Your task to perform on an android device: empty trash in google photos Image 0: 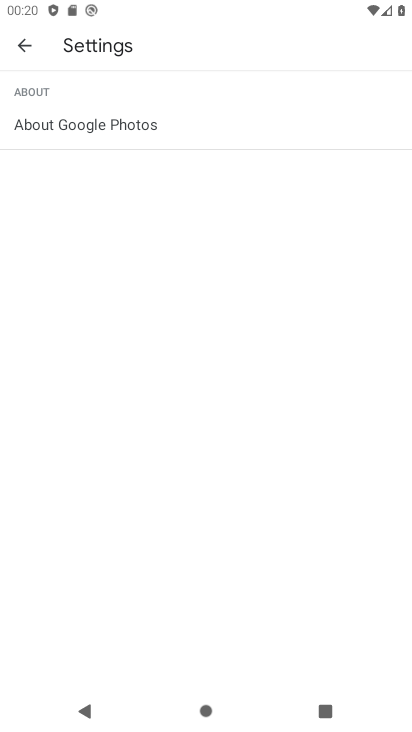
Step 0: press home button
Your task to perform on an android device: empty trash in google photos Image 1: 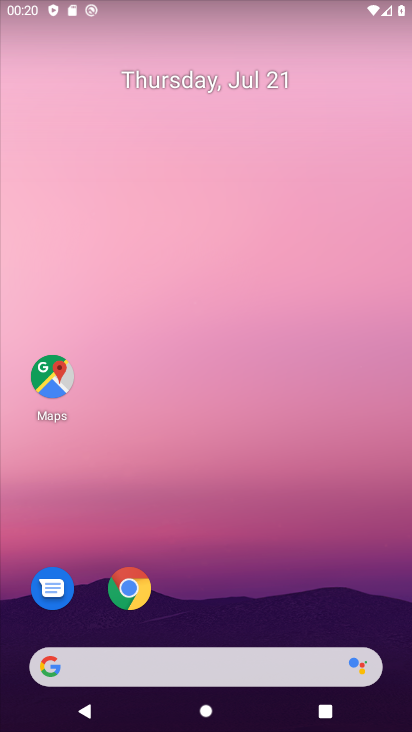
Step 1: drag from (271, 495) to (338, 32)
Your task to perform on an android device: empty trash in google photos Image 2: 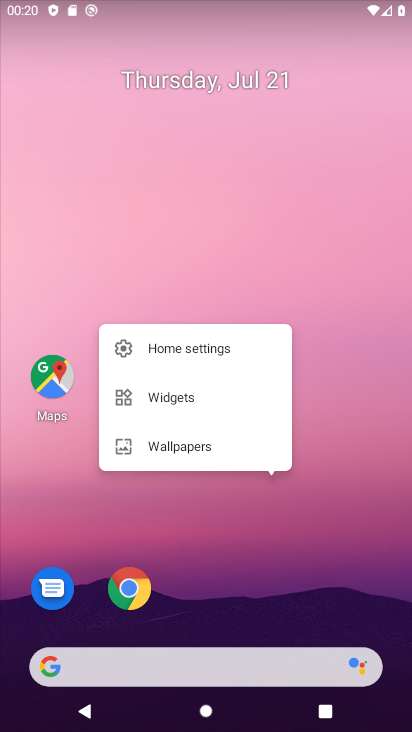
Step 2: click (368, 276)
Your task to perform on an android device: empty trash in google photos Image 3: 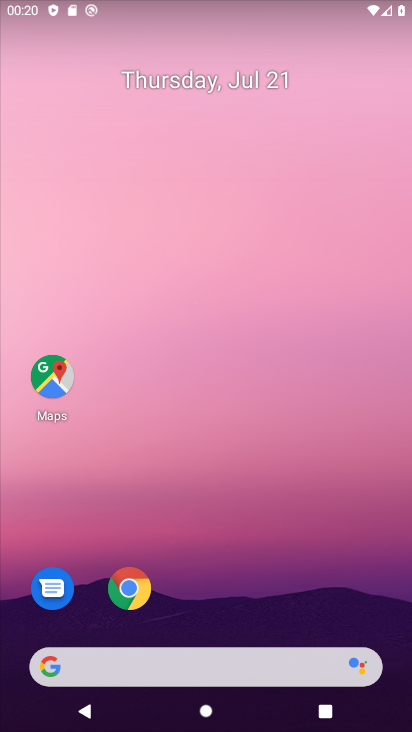
Step 3: drag from (213, 518) to (288, 9)
Your task to perform on an android device: empty trash in google photos Image 4: 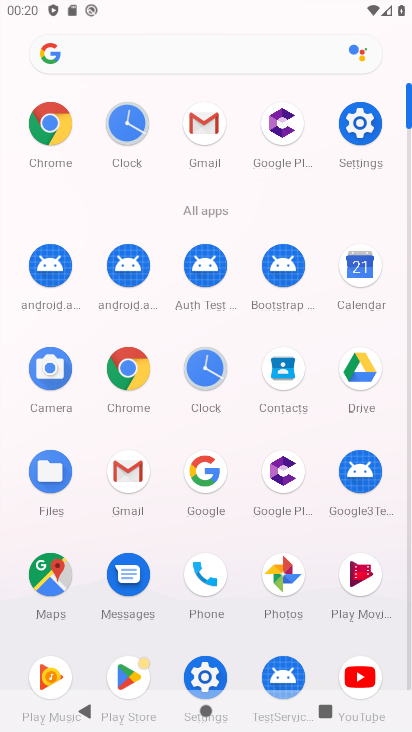
Step 4: click (272, 567)
Your task to perform on an android device: empty trash in google photos Image 5: 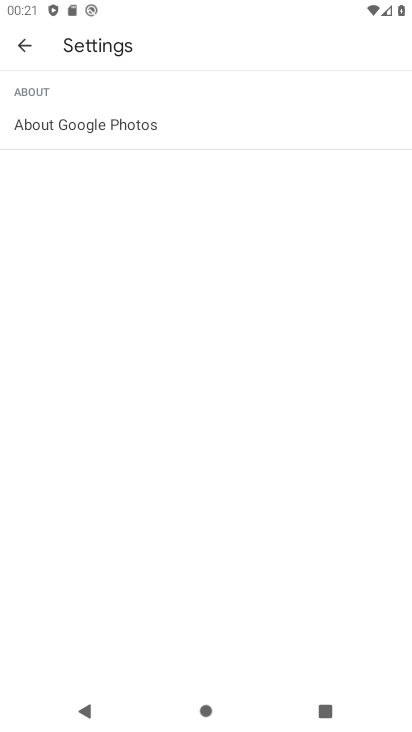
Step 5: click (21, 38)
Your task to perform on an android device: empty trash in google photos Image 6: 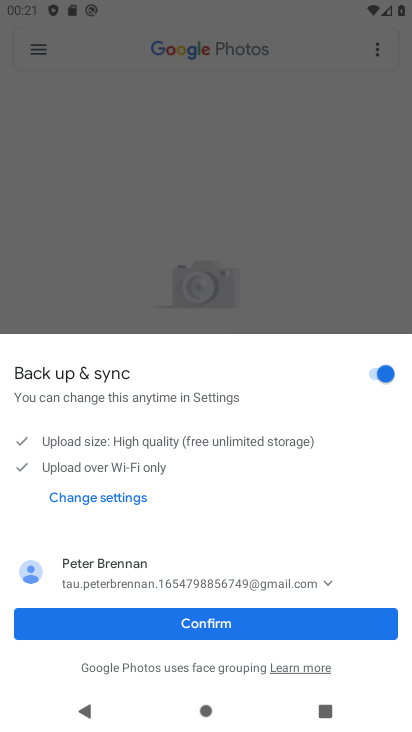
Step 6: click (233, 623)
Your task to perform on an android device: empty trash in google photos Image 7: 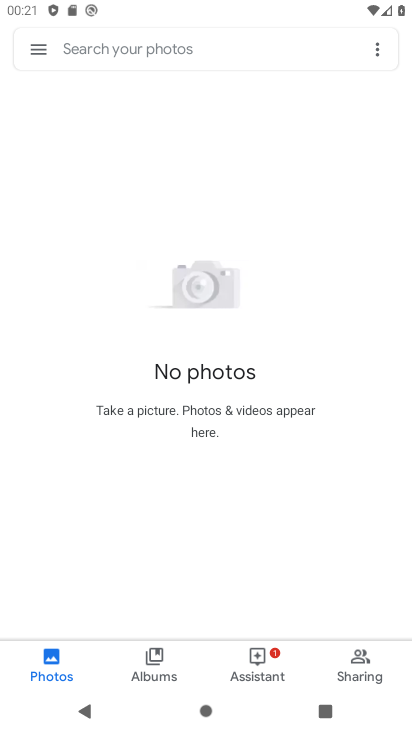
Step 7: click (29, 46)
Your task to perform on an android device: empty trash in google photos Image 8: 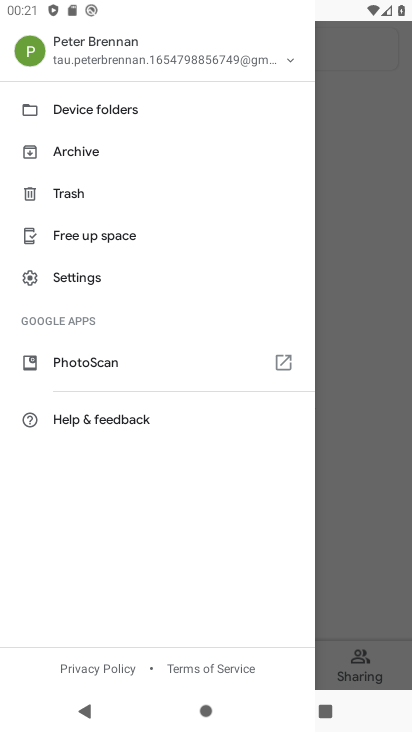
Step 8: click (89, 188)
Your task to perform on an android device: empty trash in google photos Image 9: 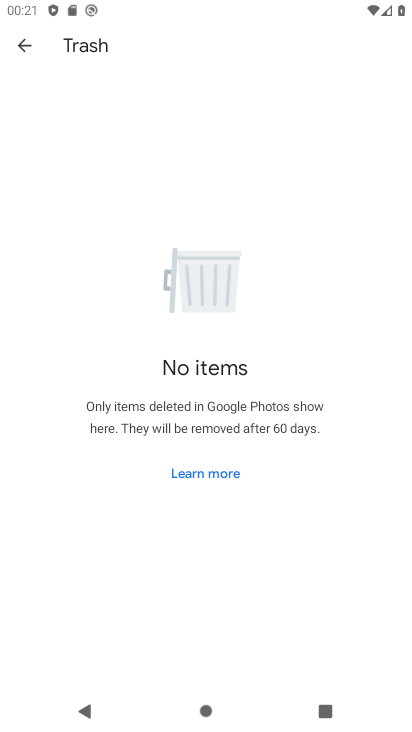
Step 9: task complete